Your task to perform on an android device: empty trash in the gmail app Image 0: 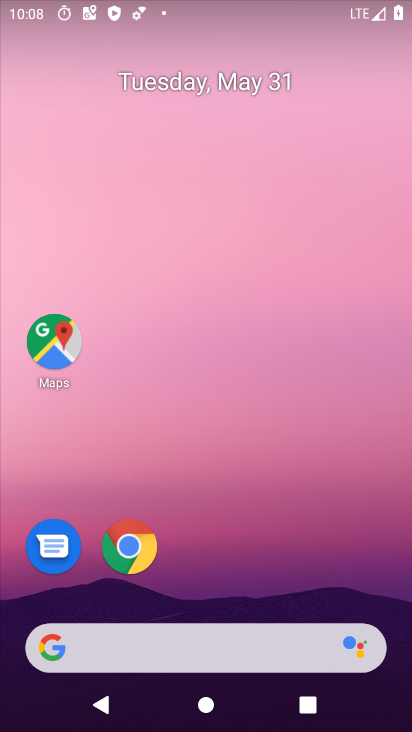
Step 0: drag from (266, 579) to (356, 56)
Your task to perform on an android device: empty trash in the gmail app Image 1: 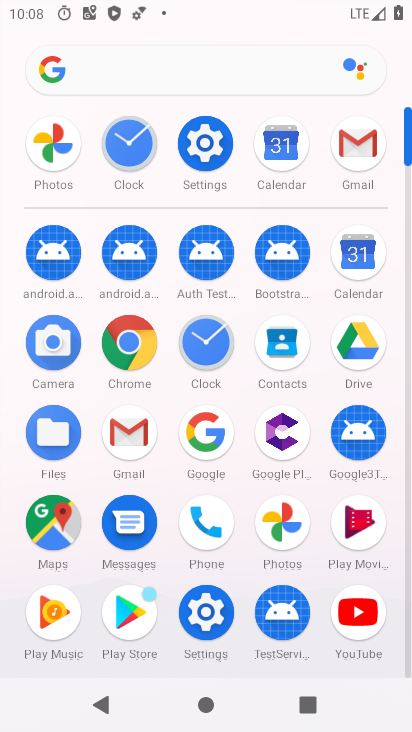
Step 1: click (359, 146)
Your task to perform on an android device: empty trash in the gmail app Image 2: 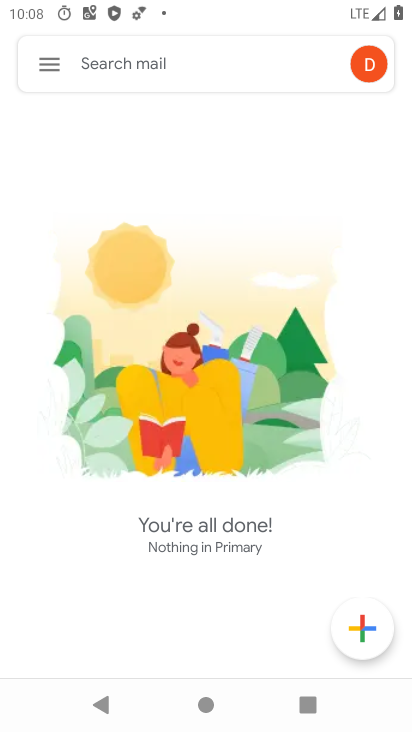
Step 2: click (43, 61)
Your task to perform on an android device: empty trash in the gmail app Image 3: 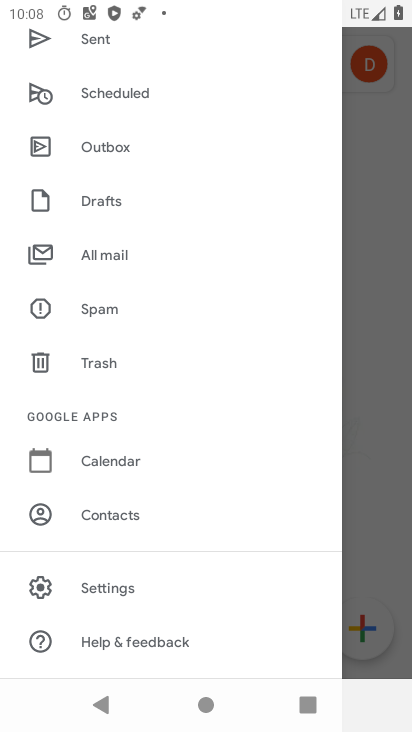
Step 3: click (95, 353)
Your task to perform on an android device: empty trash in the gmail app Image 4: 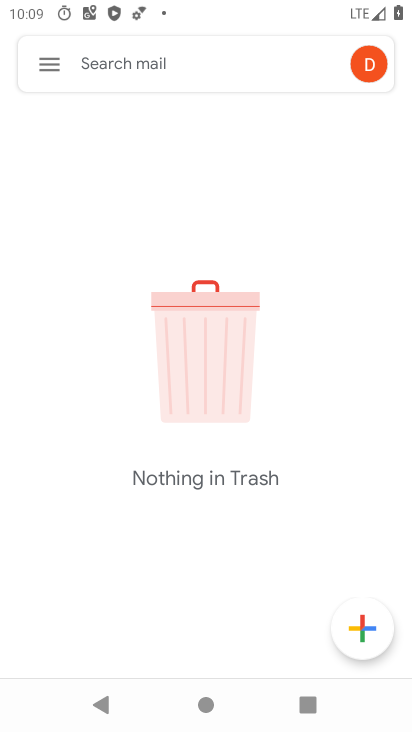
Step 4: task complete